Your task to perform on an android device: open app "PUBG MOBILE" (install if not already installed) Image 0: 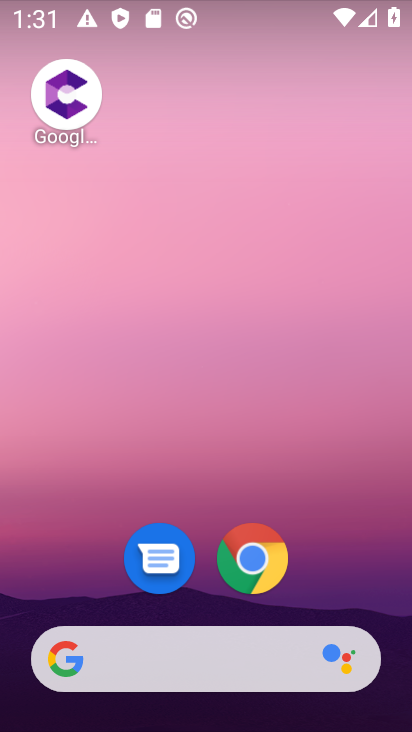
Step 0: press home button
Your task to perform on an android device: open app "PUBG MOBILE" (install if not already installed) Image 1: 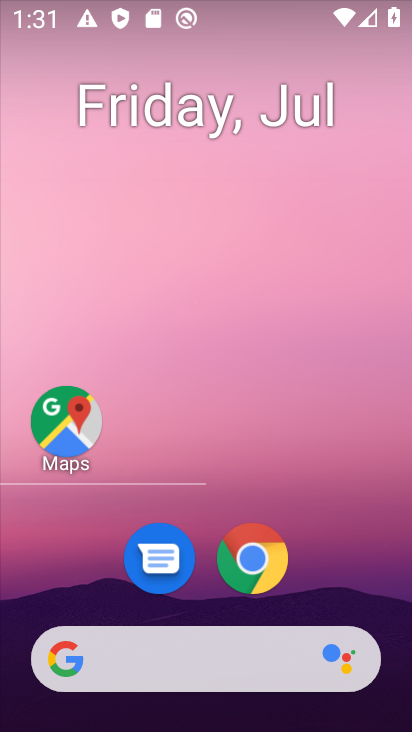
Step 1: drag from (355, 608) to (343, 41)
Your task to perform on an android device: open app "PUBG MOBILE" (install if not already installed) Image 2: 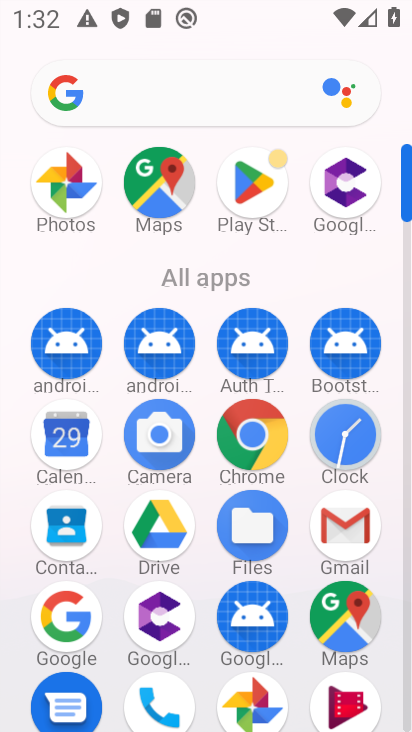
Step 2: click (264, 173)
Your task to perform on an android device: open app "PUBG MOBILE" (install if not already installed) Image 3: 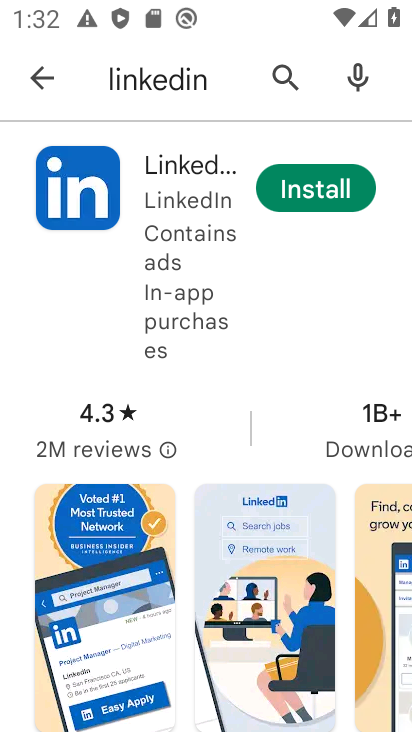
Step 3: click (274, 67)
Your task to perform on an android device: open app "PUBG MOBILE" (install if not already installed) Image 4: 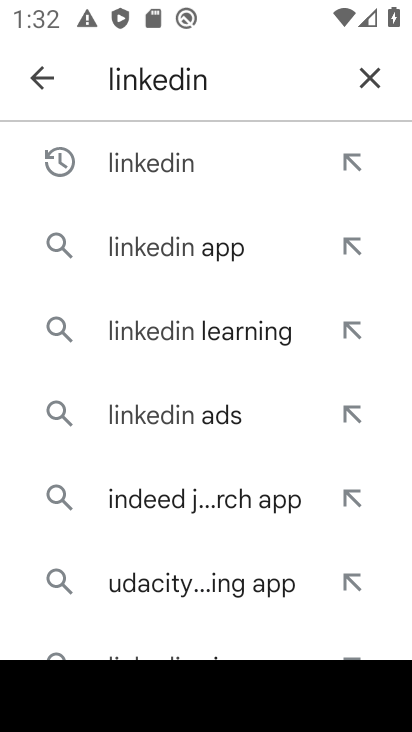
Step 4: click (366, 74)
Your task to perform on an android device: open app "PUBG MOBILE" (install if not already installed) Image 5: 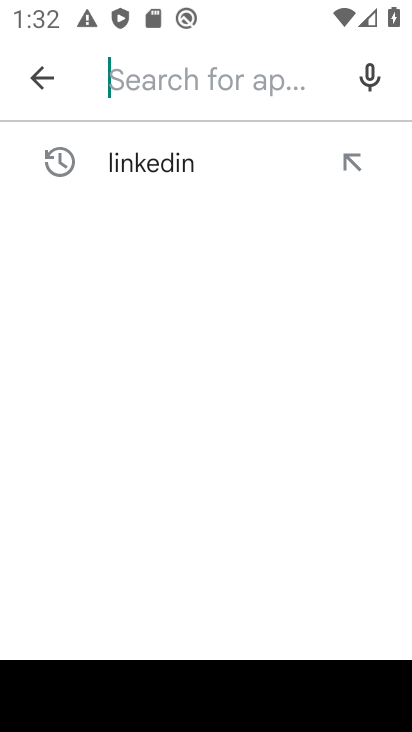
Step 5: type "PUBG MOBILE" "
Your task to perform on an android device: open app "PUBG MOBILE" (install if not already installed) Image 6: 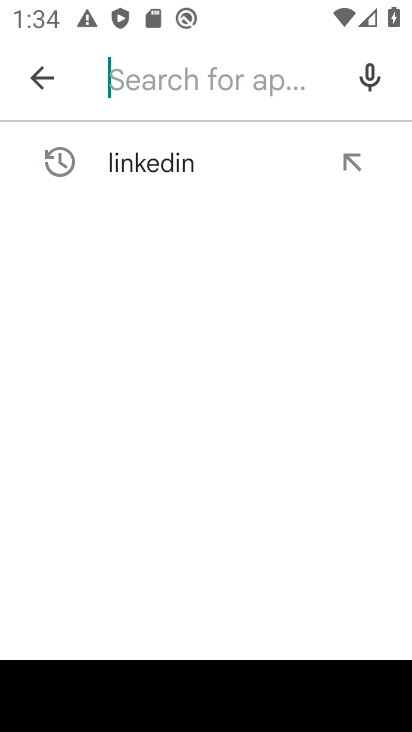
Step 6: type "PUBG MOBILE"
Your task to perform on an android device: open app "PUBG MOBILE" (install if not already installed) Image 7: 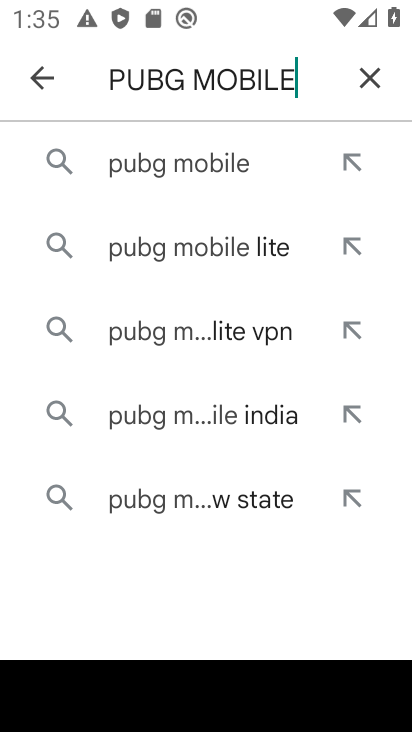
Step 7: click (203, 177)
Your task to perform on an android device: open app "PUBG MOBILE" (install if not already installed) Image 8: 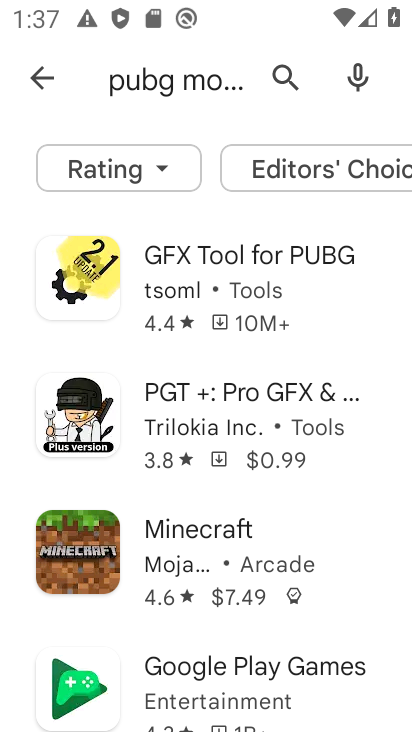
Step 8: task complete